Your task to perform on an android device: turn on airplane mode Image 0: 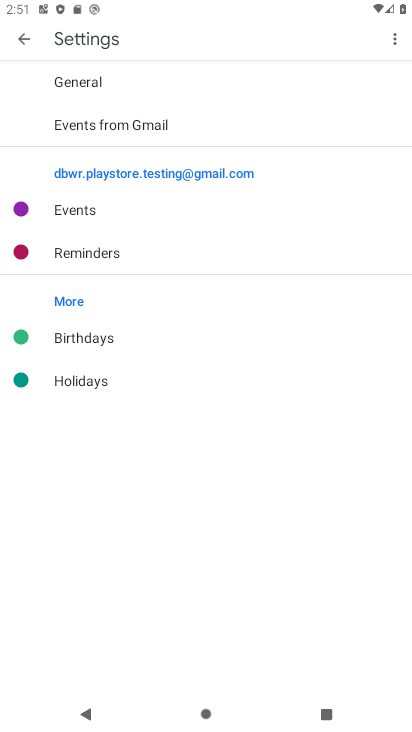
Step 0: press home button
Your task to perform on an android device: turn on airplane mode Image 1: 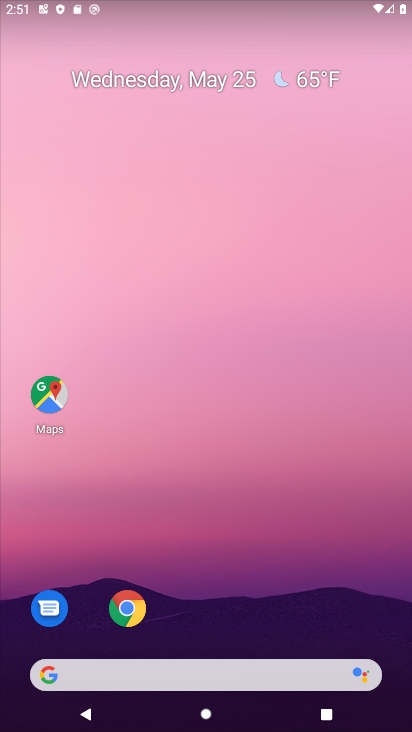
Step 1: drag from (247, 609) to (222, 76)
Your task to perform on an android device: turn on airplane mode Image 2: 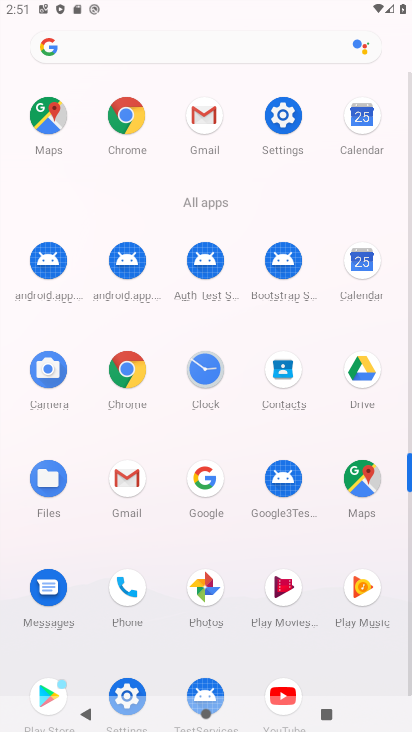
Step 2: click (284, 124)
Your task to perform on an android device: turn on airplane mode Image 3: 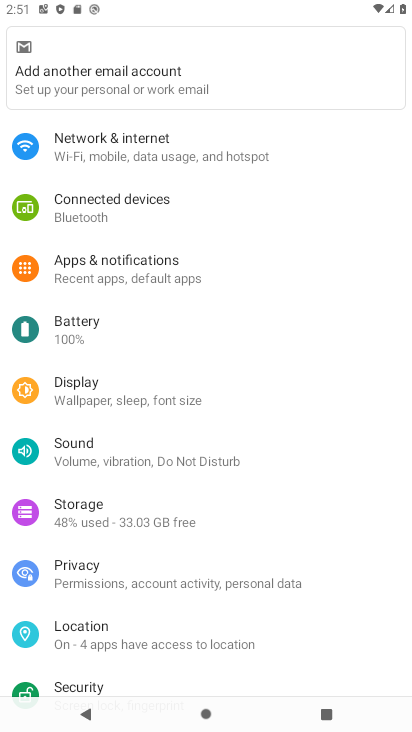
Step 3: click (105, 158)
Your task to perform on an android device: turn on airplane mode Image 4: 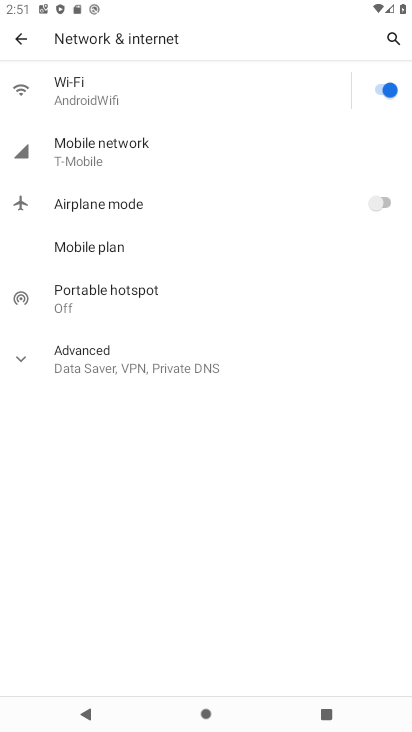
Step 4: click (385, 201)
Your task to perform on an android device: turn on airplane mode Image 5: 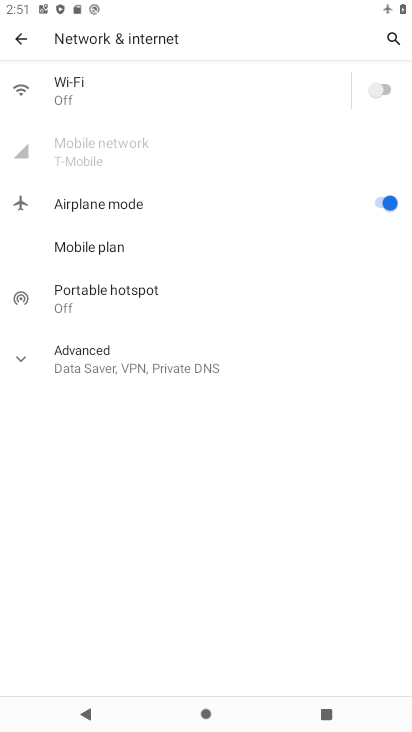
Step 5: task complete